Your task to perform on an android device: turn off javascript in the chrome app Image 0: 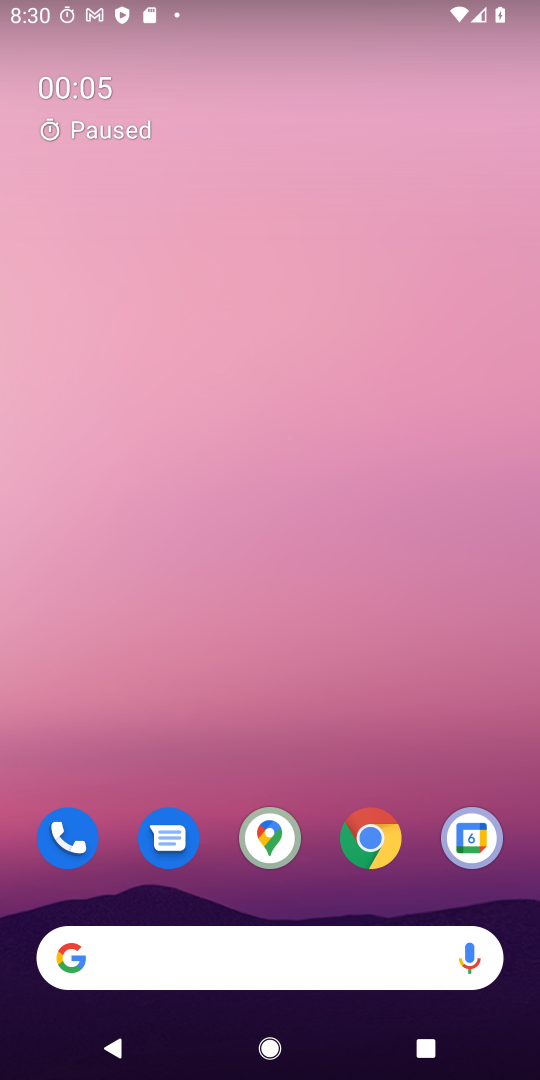
Step 0: click (394, 860)
Your task to perform on an android device: turn off javascript in the chrome app Image 1: 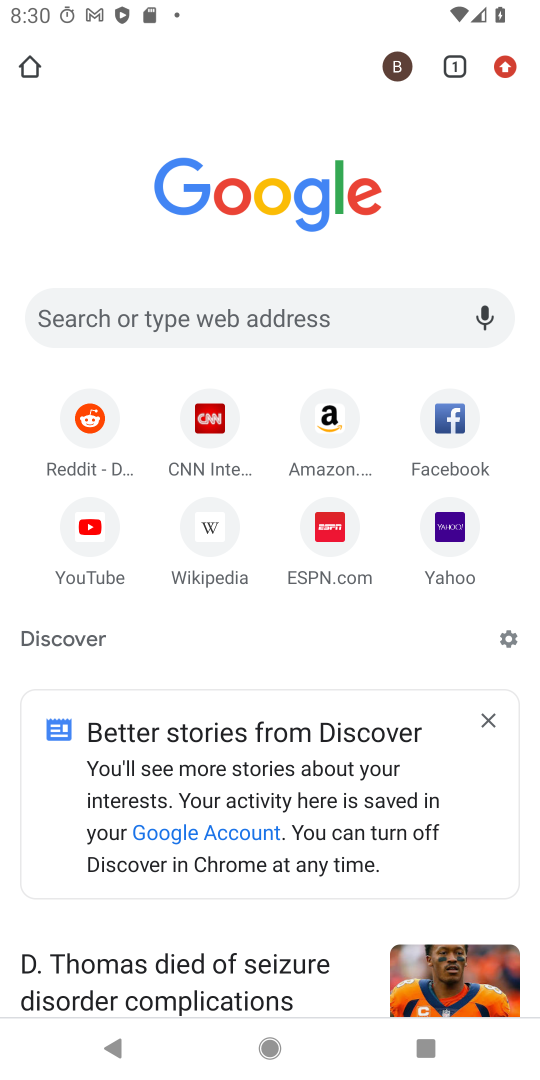
Step 1: click (504, 73)
Your task to perform on an android device: turn off javascript in the chrome app Image 2: 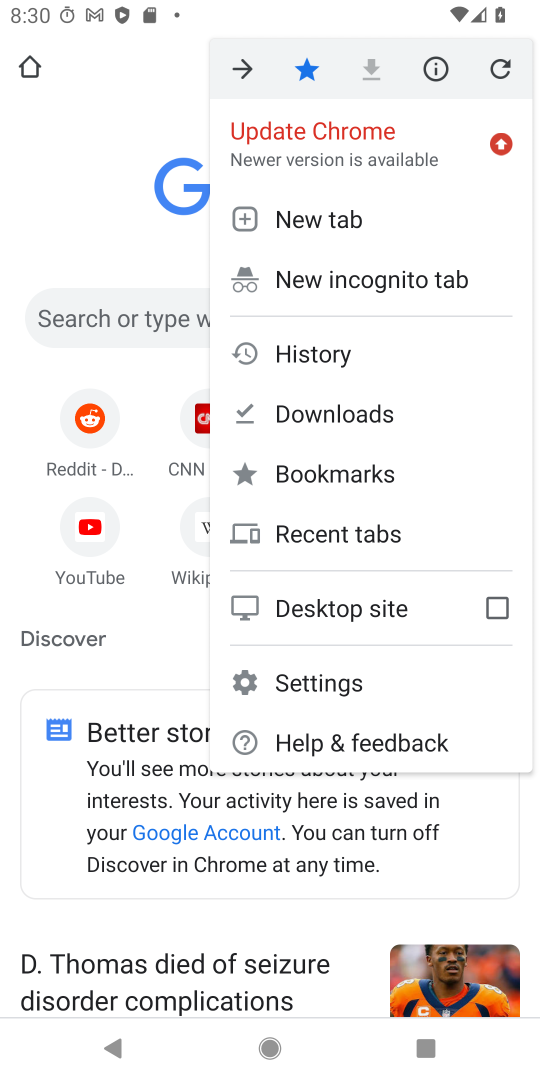
Step 2: click (281, 685)
Your task to perform on an android device: turn off javascript in the chrome app Image 3: 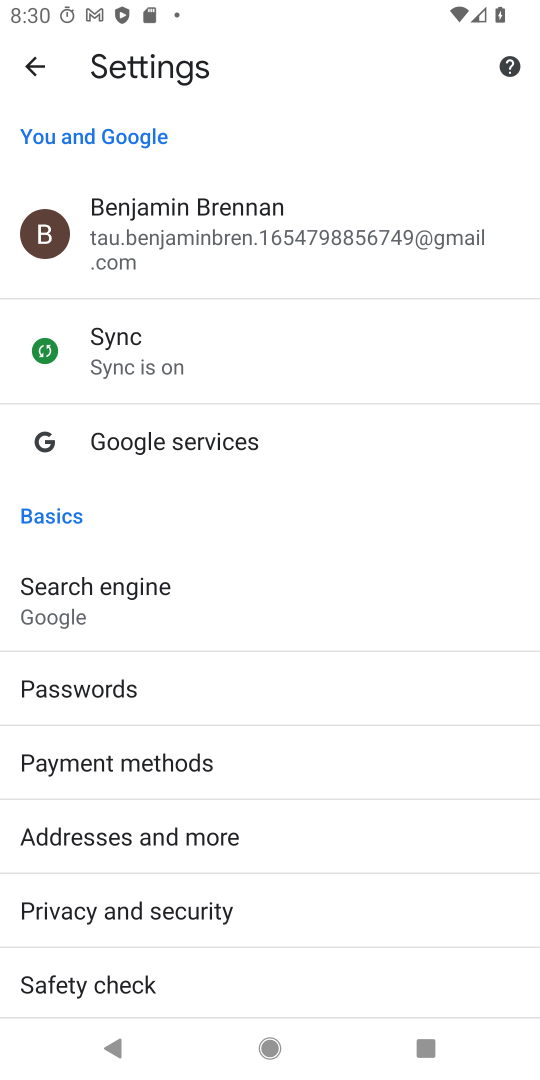
Step 3: drag from (253, 650) to (385, 31)
Your task to perform on an android device: turn off javascript in the chrome app Image 4: 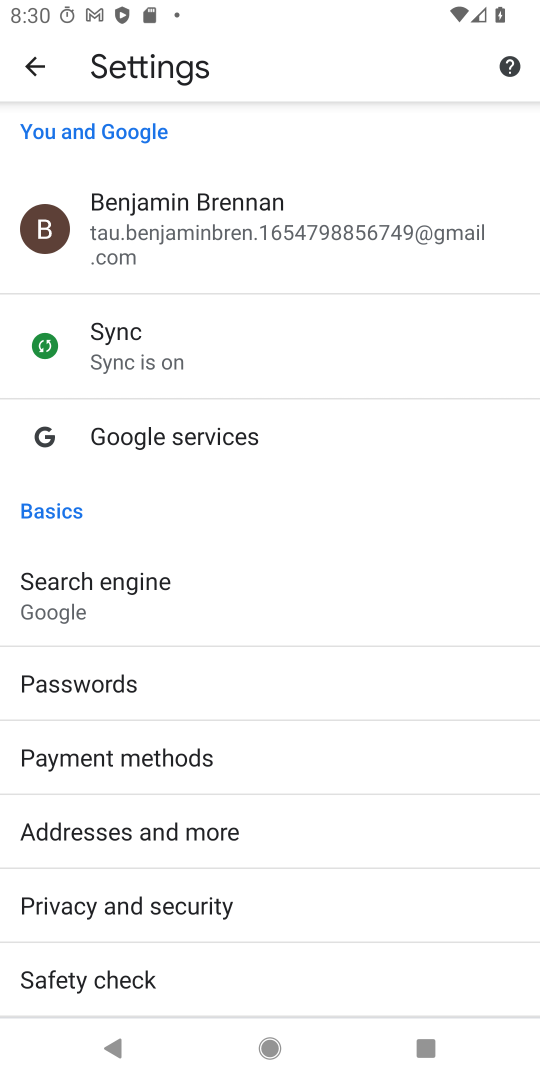
Step 4: drag from (181, 945) to (232, 314)
Your task to perform on an android device: turn off javascript in the chrome app Image 5: 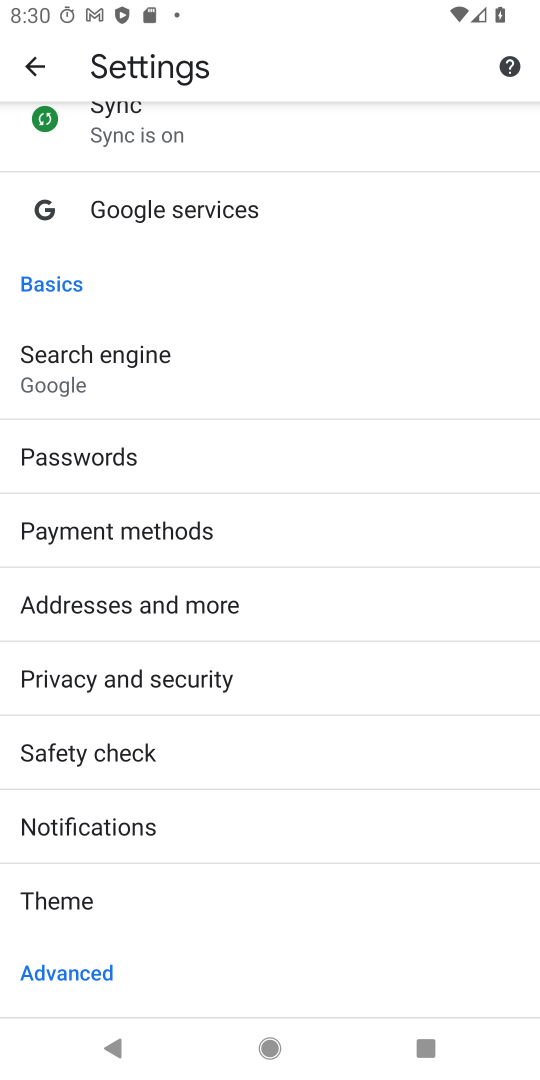
Step 5: drag from (153, 966) to (219, 506)
Your task to perform on an android device: turn off javascript in the chrome app Image 6: 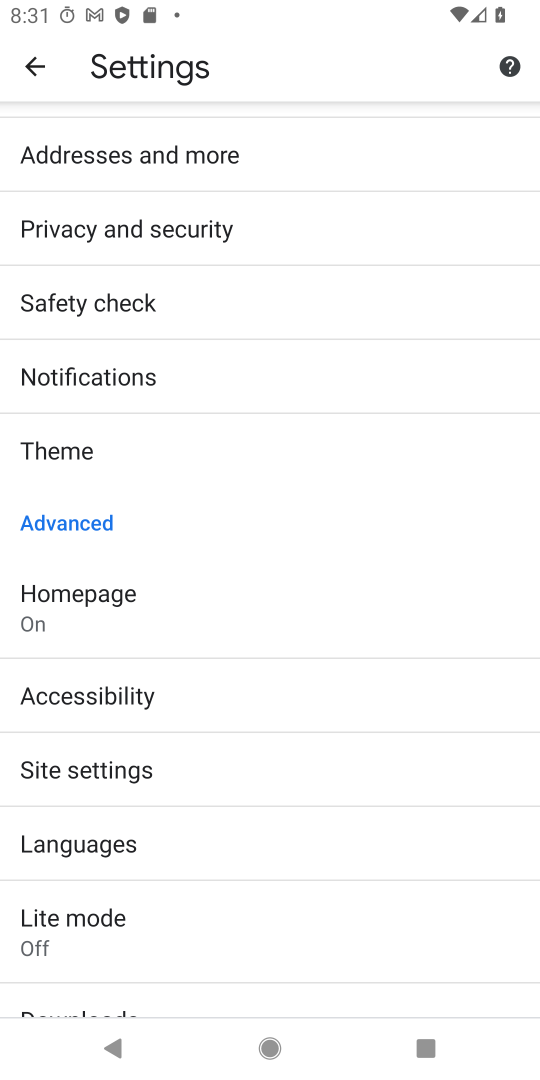
Step 6: drag from (176, 947) to (196, 423)
Your task to perform on an android device: turn off javascript in the chrome app Image 7: 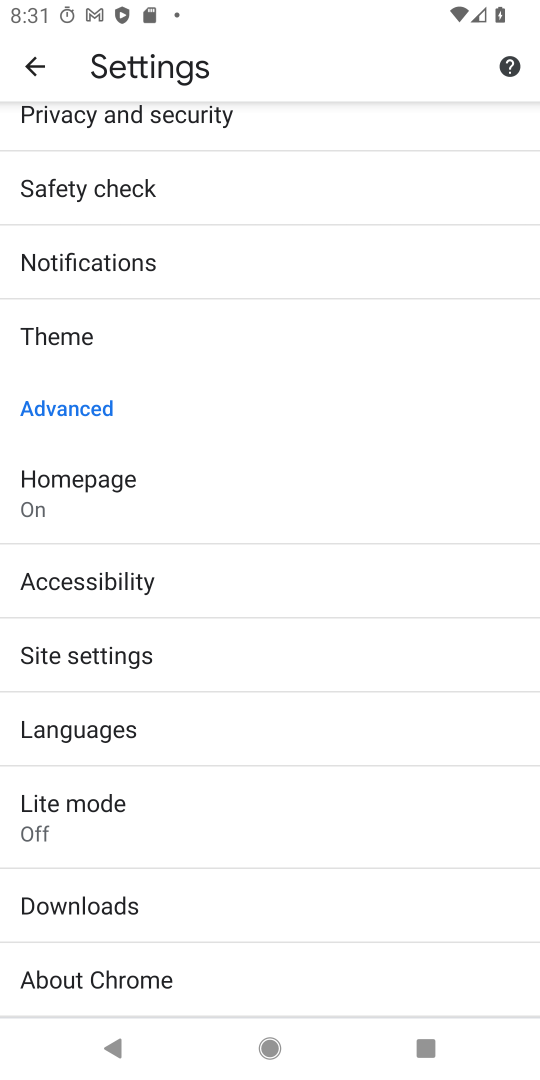
Step 7: click (115, 647)
Your task to perform on an android device: turn off javascript in the chrome app Image 8: 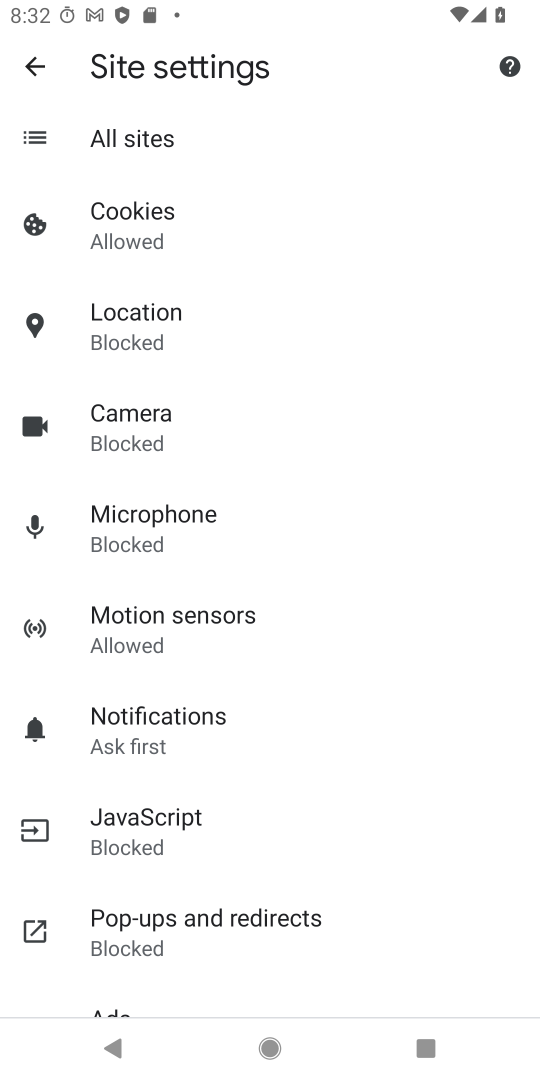
Step 8: click (125, 832)
Your task to perform on an android device: turn off javascript in the chrome app Image 9: 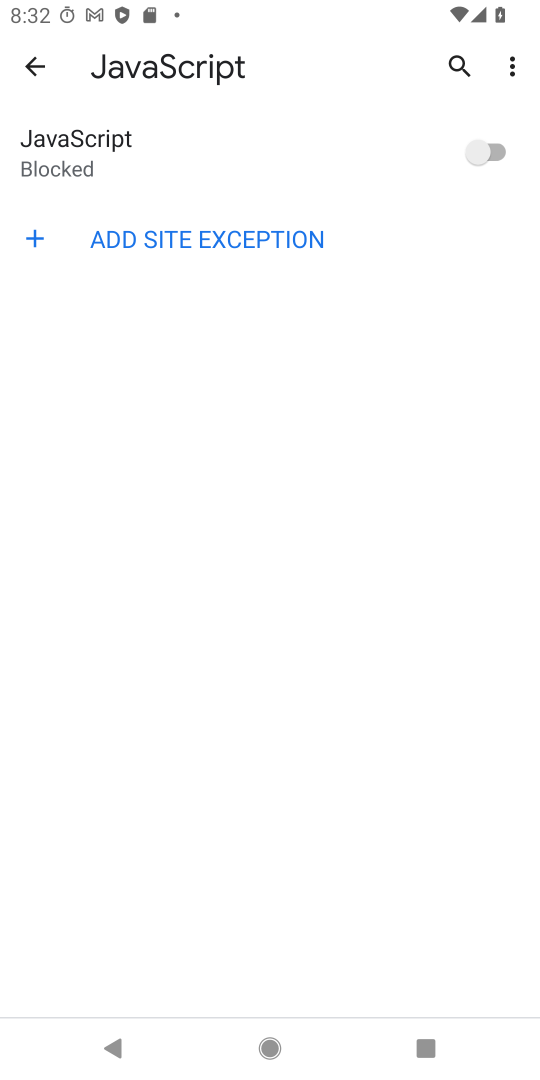
Step 9: task complete